Your task to perform on an android device: clear history in the chrome app Image 0: 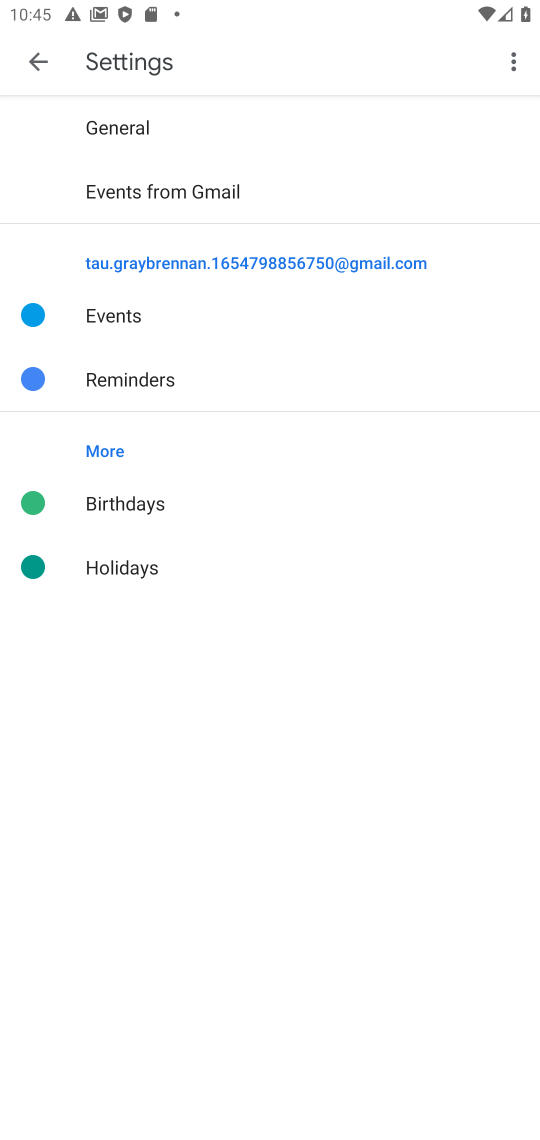
Step 0: press back button
Your task to perform on an android device: clear history in the chrome app Image 1: 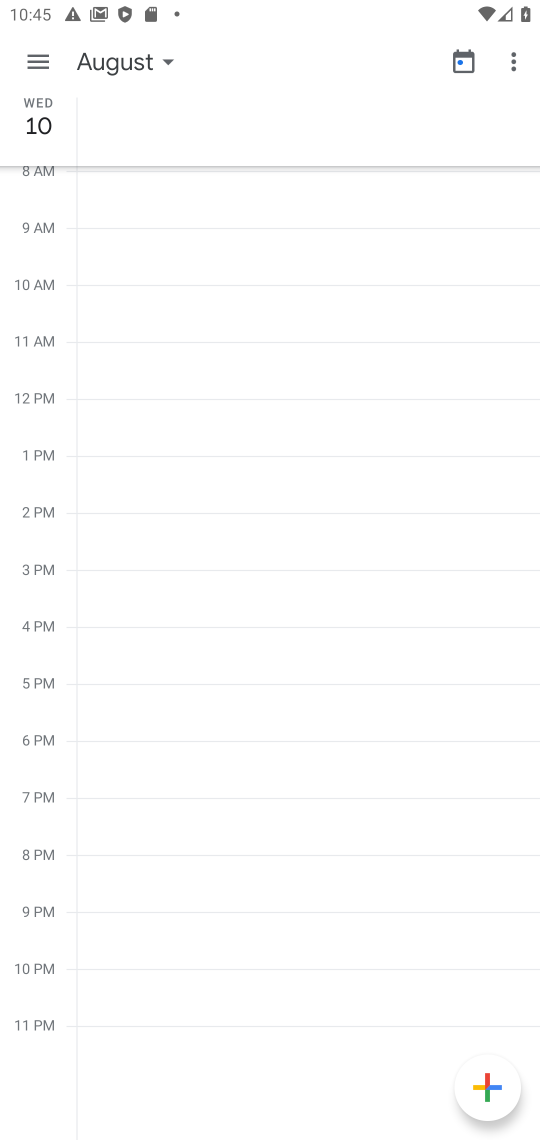
Step 1: press home button
Your task to perform on an android device: clear history in the chrome app Image 2: 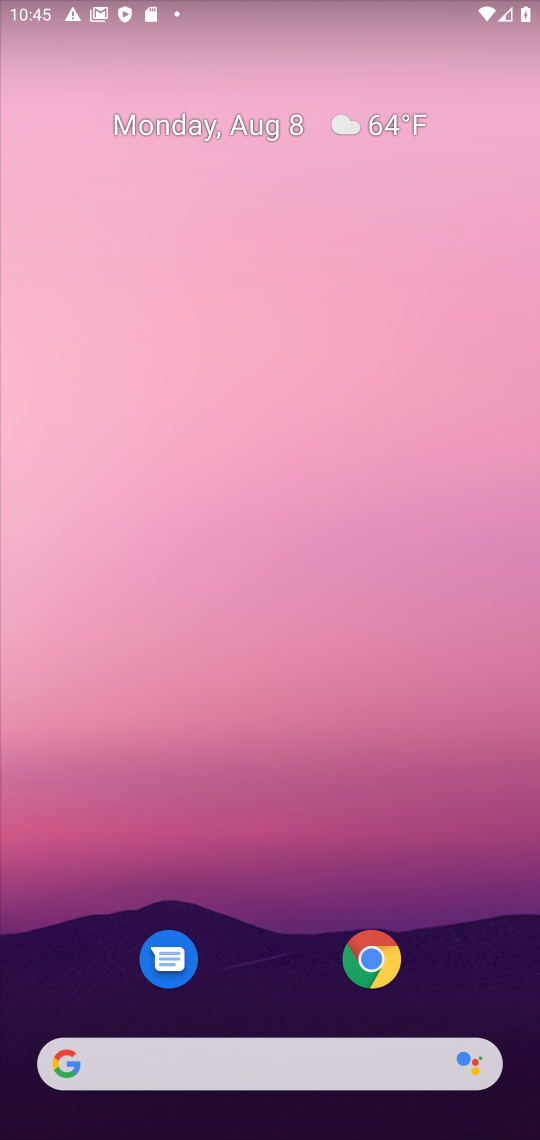
Step 2: click (384, 949)
Your task to perform on an android device: clear history in the chrome app Image 3: 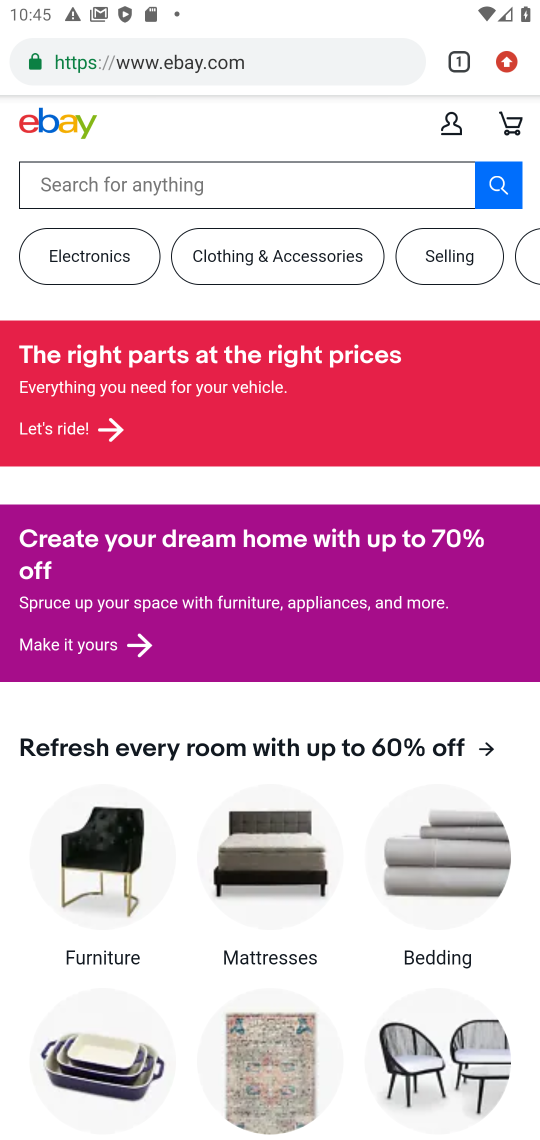
Step 3: click (512, 59)
Your task to perform on an android device: clear history in the chrome app Image 4: 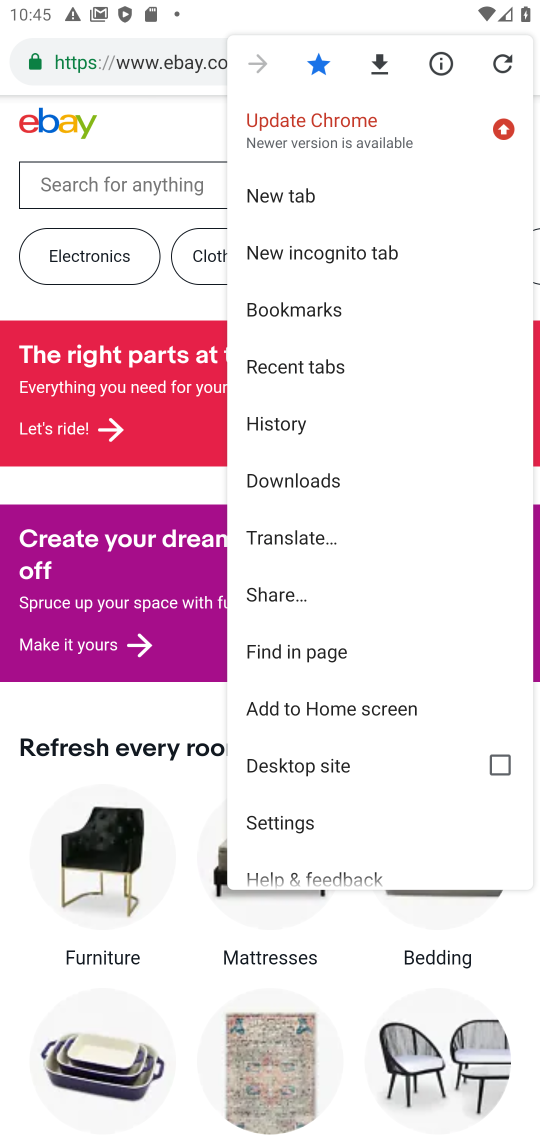
Step 4: click (360, 410)
Your task to perform on an android device: clear history in the chrome app Image 5: 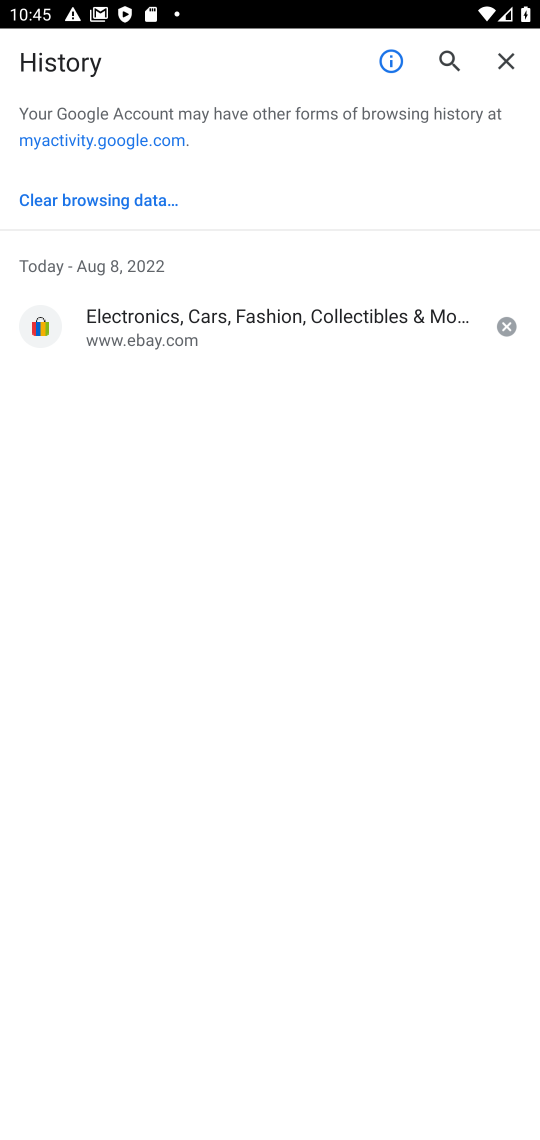
Step 5: click (133, 211)
Your task to perform on an android device: clear history in the chrome app Image 6: 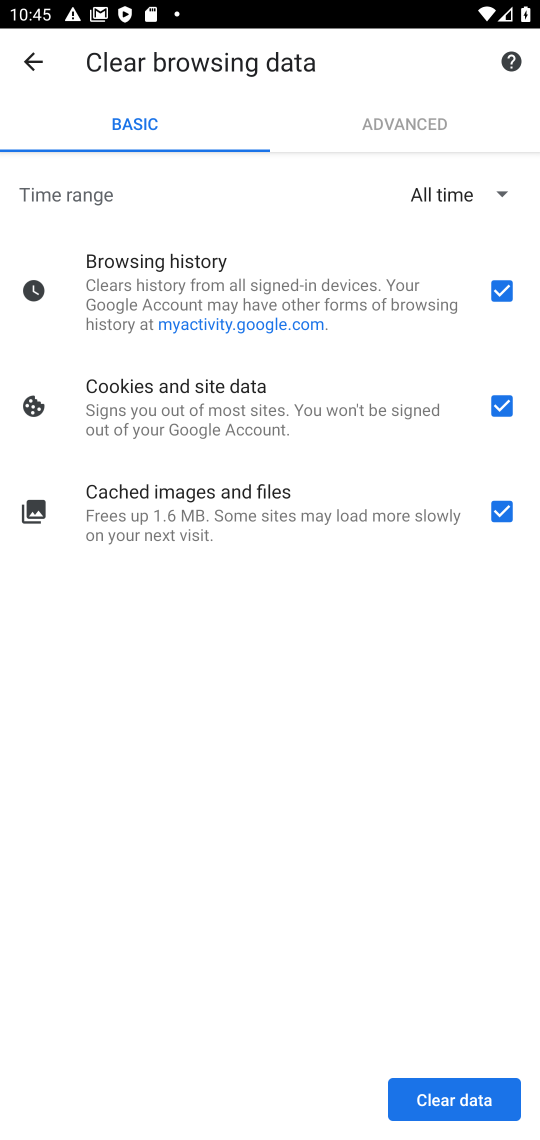
Step 6: click (501, 519)
Your task to perform on an android device: clear history in the chrome app Image 7: 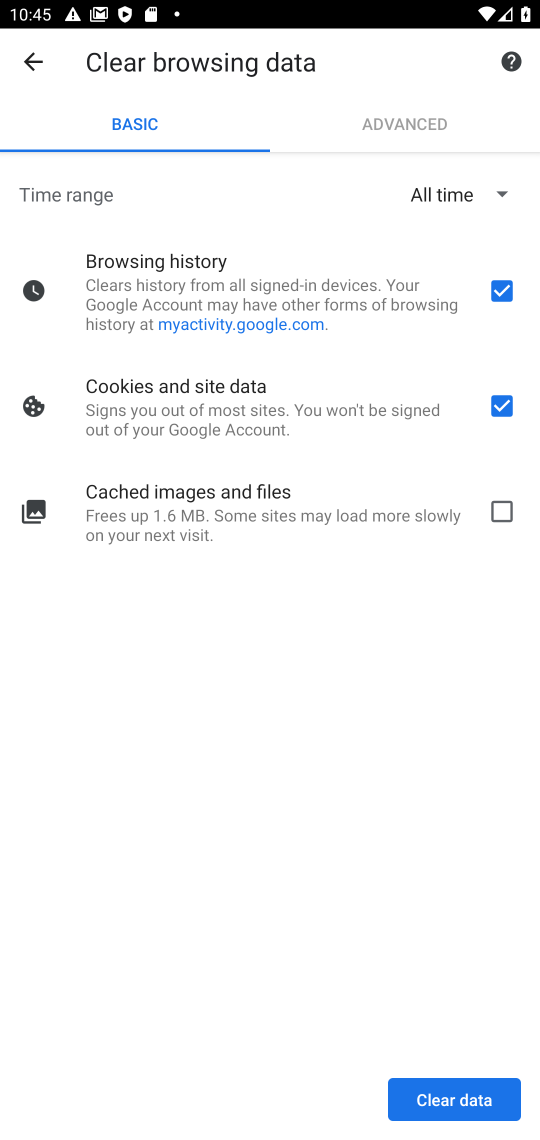
Step 7: click (495, 402)
Your task to perform on an android device: clear history in the chrome app Image 8: 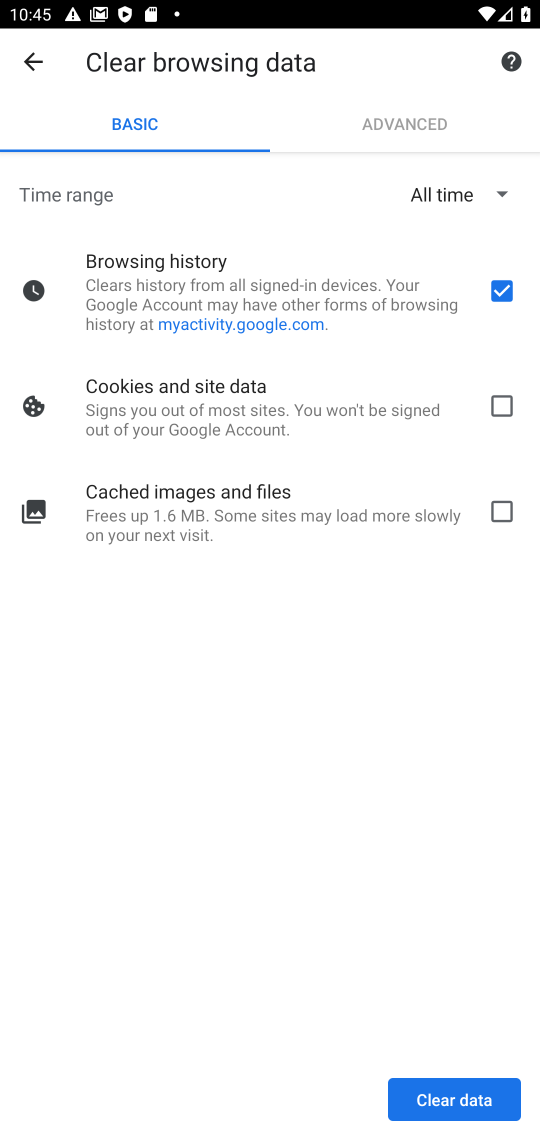
Step 8: click (455, 1090)
Your task to perform on an android device: clear history in the chrome app Image 9: 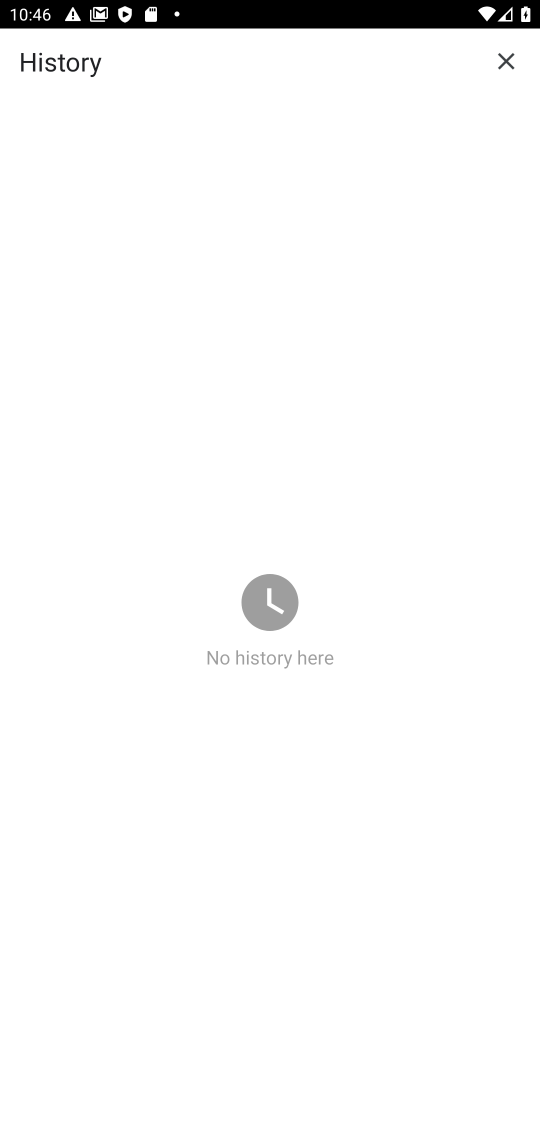
Step 9: task complete